Your task to perform on an android device: delete a single message in the gmail app Image 0: 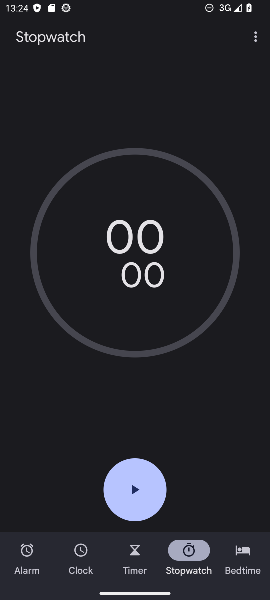
Step 0: press home button
Your task to perform on an android device: delete a single message in the gmail app Image 1: 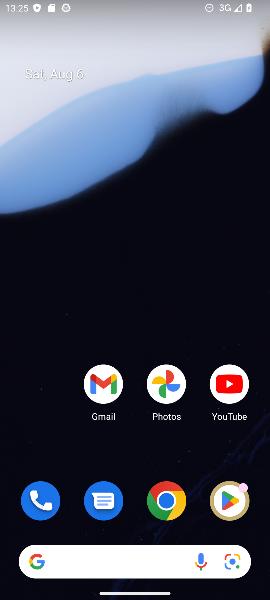
Step 1: click (102, 387)
Your task to perform on an android device: delete a single message in the gmail app Image 2: 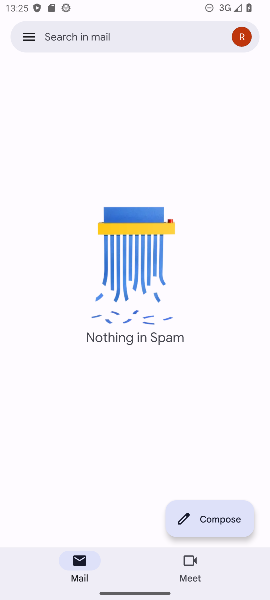
Step 2: click (24, 32)
Your task to perform on an android device: delete a single message in the gmail app Image 3: 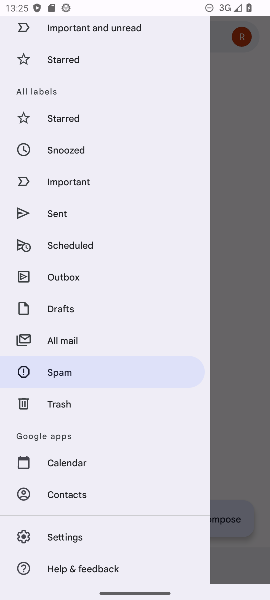
Step 3: click (65, 341)
Your task to perform on an android device: delete a single message in the gmail app Image 4: 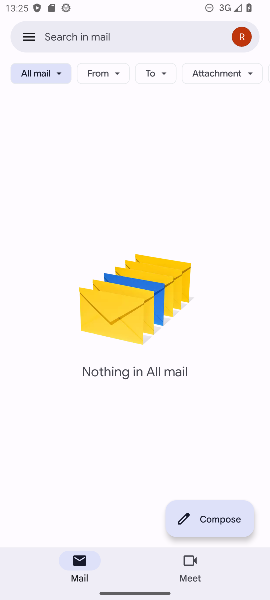
Step 4: task complete